Your task to perform on an android device: turn off sleep mode Image 0: 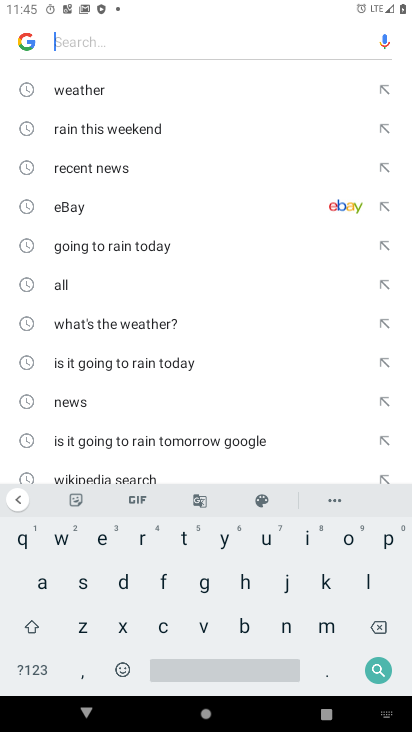
Step 0: press home button
Your task to perform on an android device: turn off sleep mode Image 1: 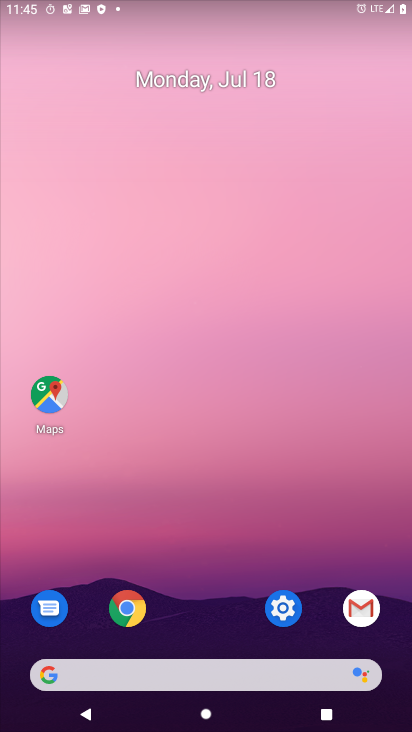
Step 1: click (281, 616)
Your task to perform on an android device: turn off sleep mode Image 2: 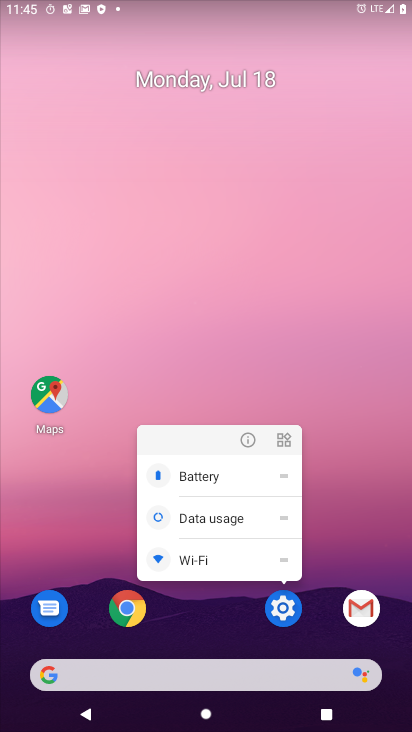
Step 2: click (292, 615)
Your task to perform on an android device: turn off sleep mode Image 3: 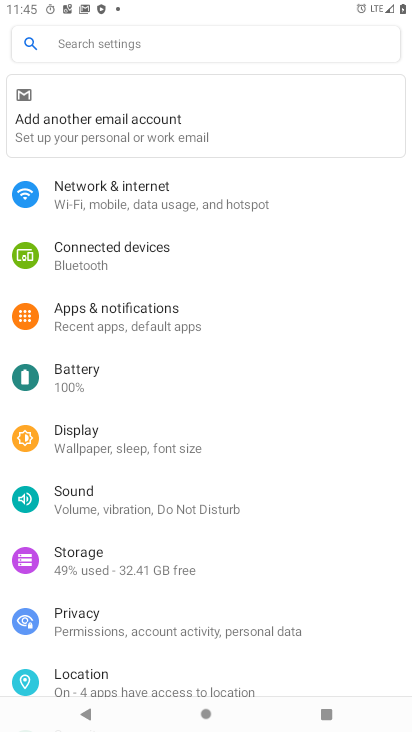
Step 3: click (111, 42)
Your task to perform on an android device: turn off sleep mode Image 4: 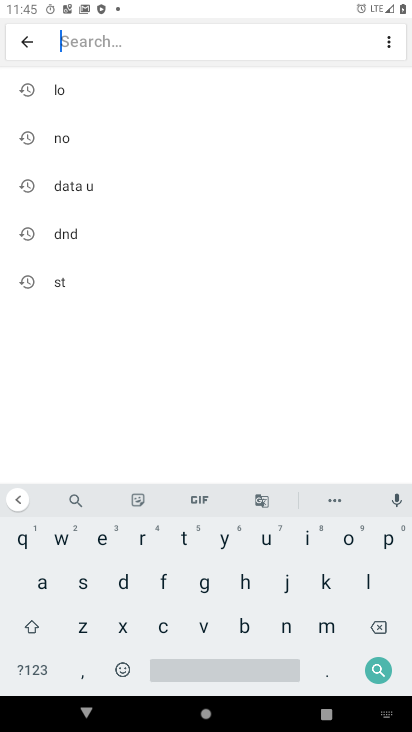
Step 4: click (80, 586)
Your task to perform on an android device: turn off sleep mode Image 5: 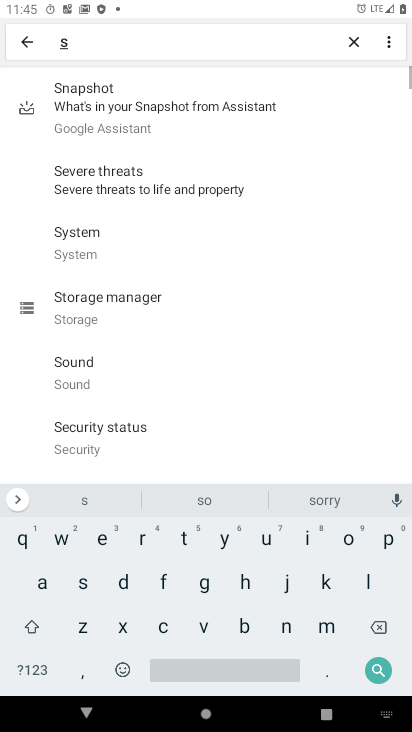
Step 5: click (371, 582)
Your task to perform on an android device: turn off sleep mode Image 6: 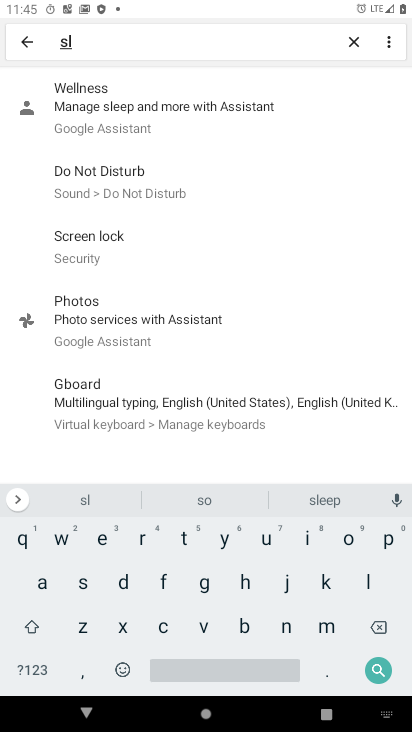
Step 6: click (99, 536)
Your task to perform on an android device: turn off sleep mode Image 7: 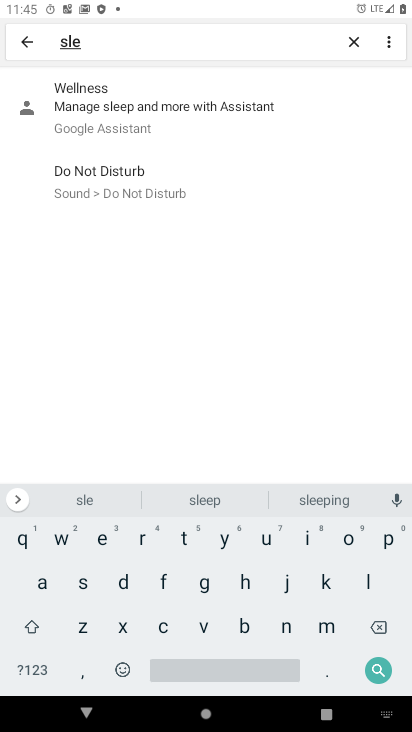
Step 7: click (138, 176)
Your task to perform on an android device: turn off sleep mode Image 8: 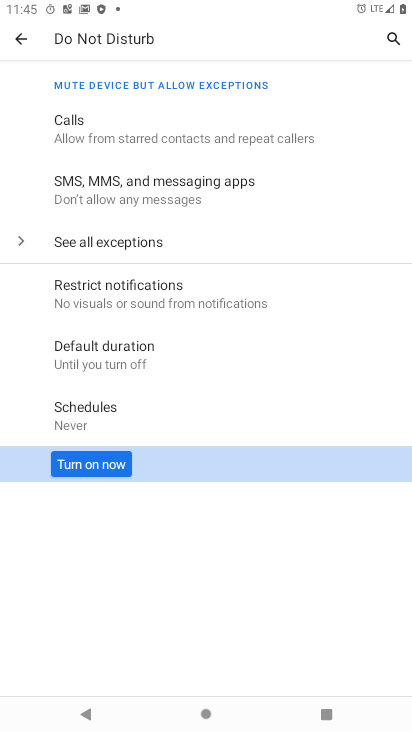
Step 8: click (109, 448)
Your task to perform on an android device: turn off sleep mode Image 9: 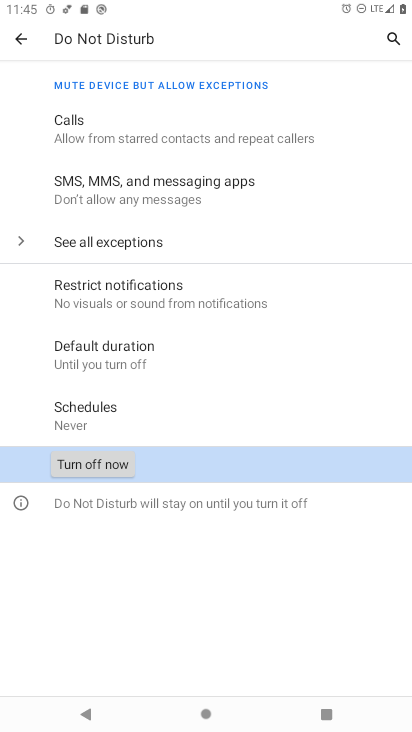
Step 9: click (106, 465)
Your task to perform on an android device: turn off sleep mode Image 10: 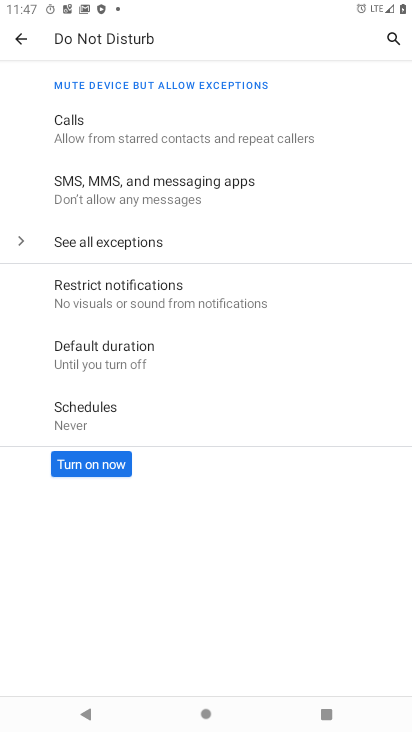
Step 10: task complete